Your task to perform on an android device: check the backup settings in the google photos Image 0: 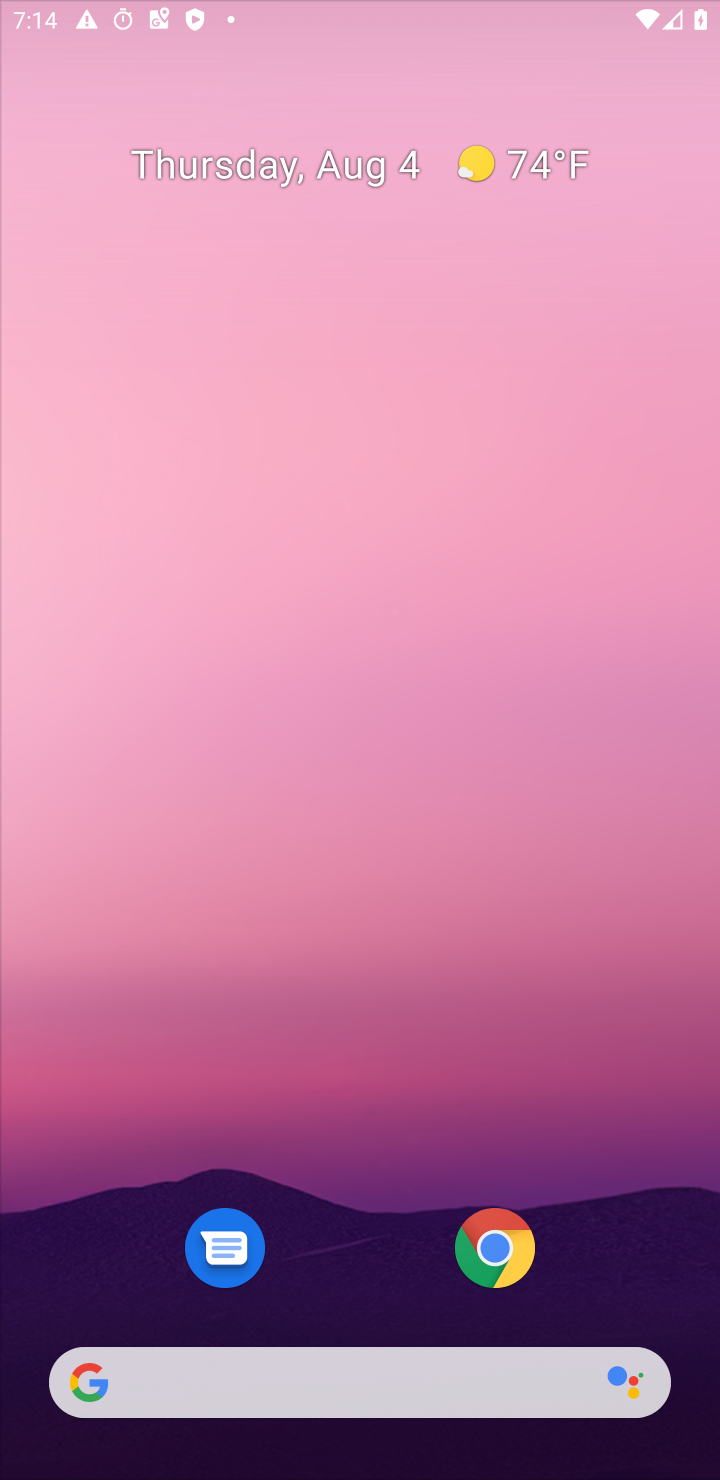
Step 0: press home button
Your task to perform on an android device: check the backup settings in the google photos Image 1: 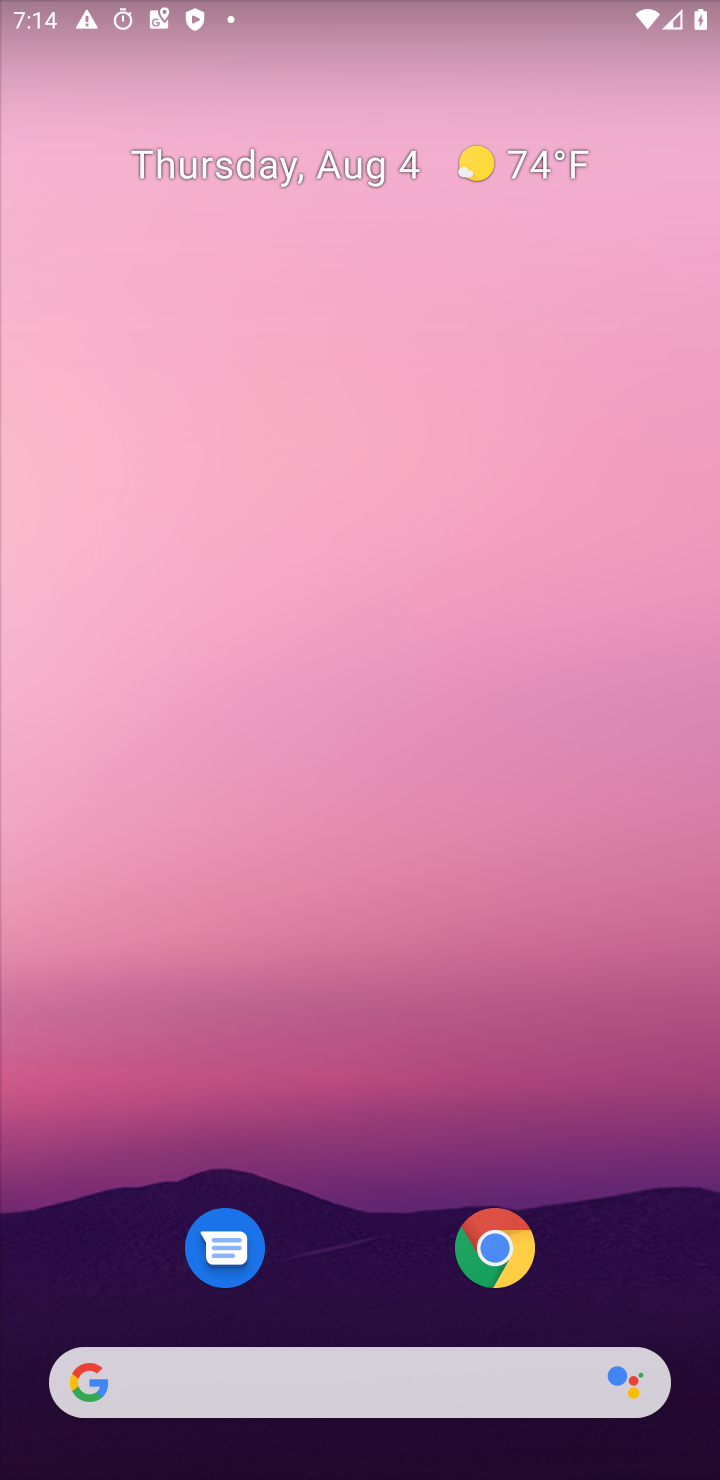
Step 1: drag from (443, 1222) to (534, 554)
Your task to perform on an android device: check the backup settings in the google photos Image 2: 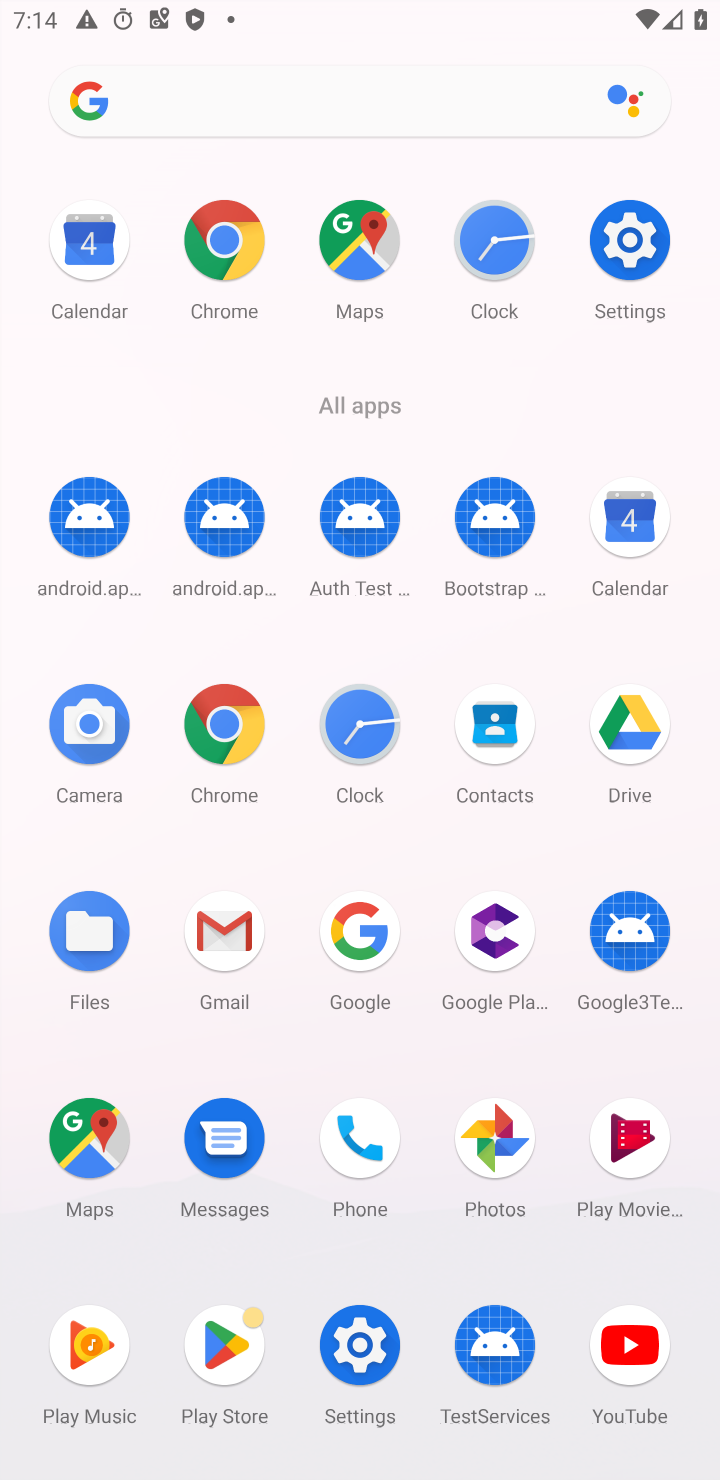
Step 2: click (499, 1132)
Your task to perform on an android device: check the backup settings in the google photos Image 3: 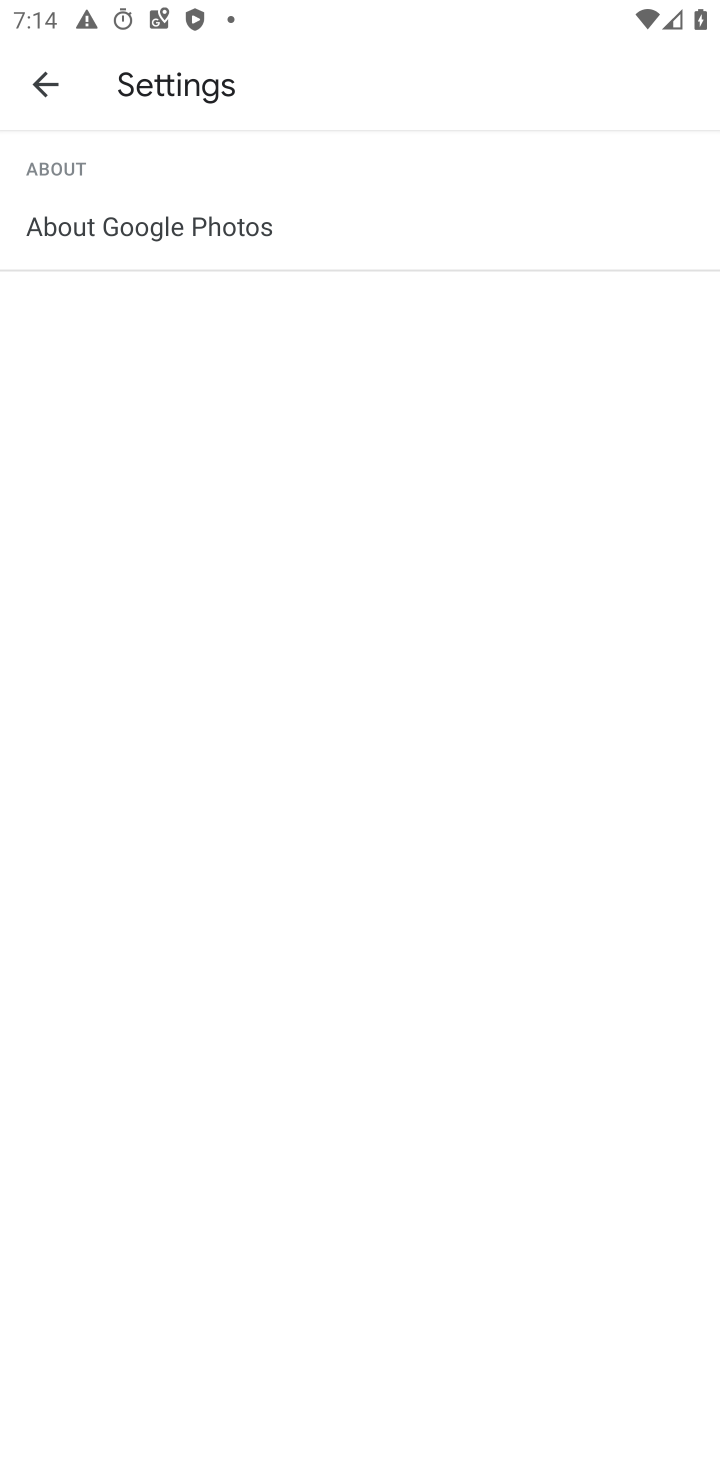
Step 3: click (50, 88)
Your task to perform on an android device: check the backup settings in the google photos Image 4: 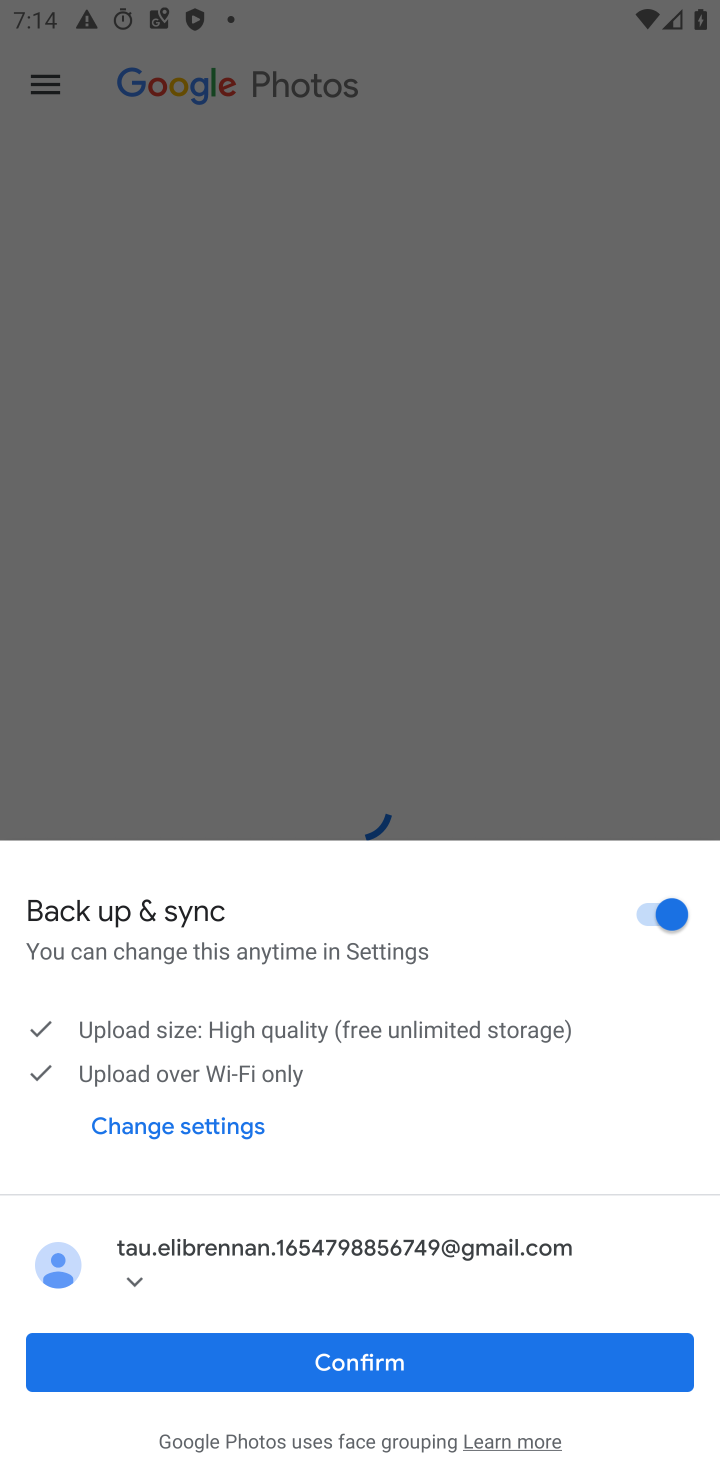
Step 4: click (503, 1363)
Your task to perform on an android device: check the backup settings in the google photos Image 5: 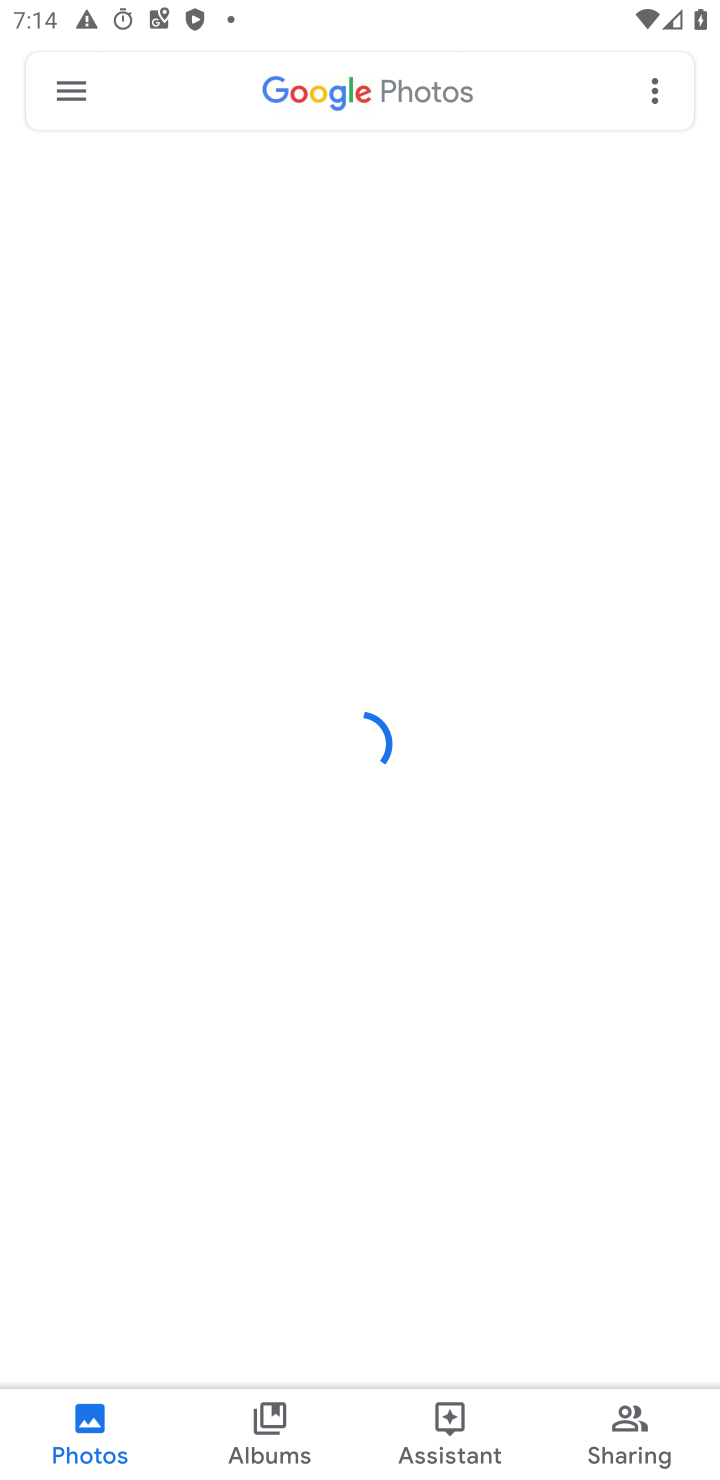
Step 5: click (72, 95)
Your task to perform on an android device: check the backup settings in the google photos Image 6: 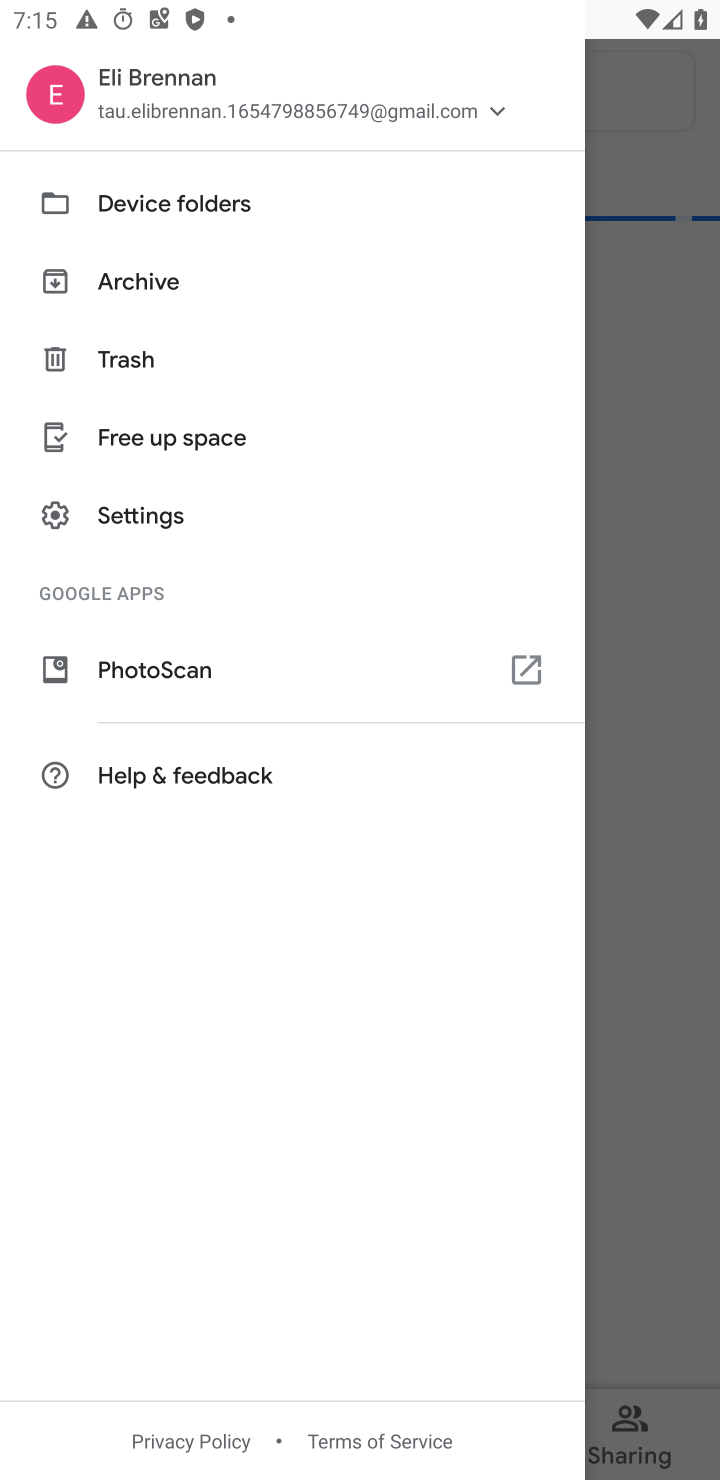
Step 6: click (163, 520)
Your task to perform on an android device: check the backup settings in the google photos Image 7: 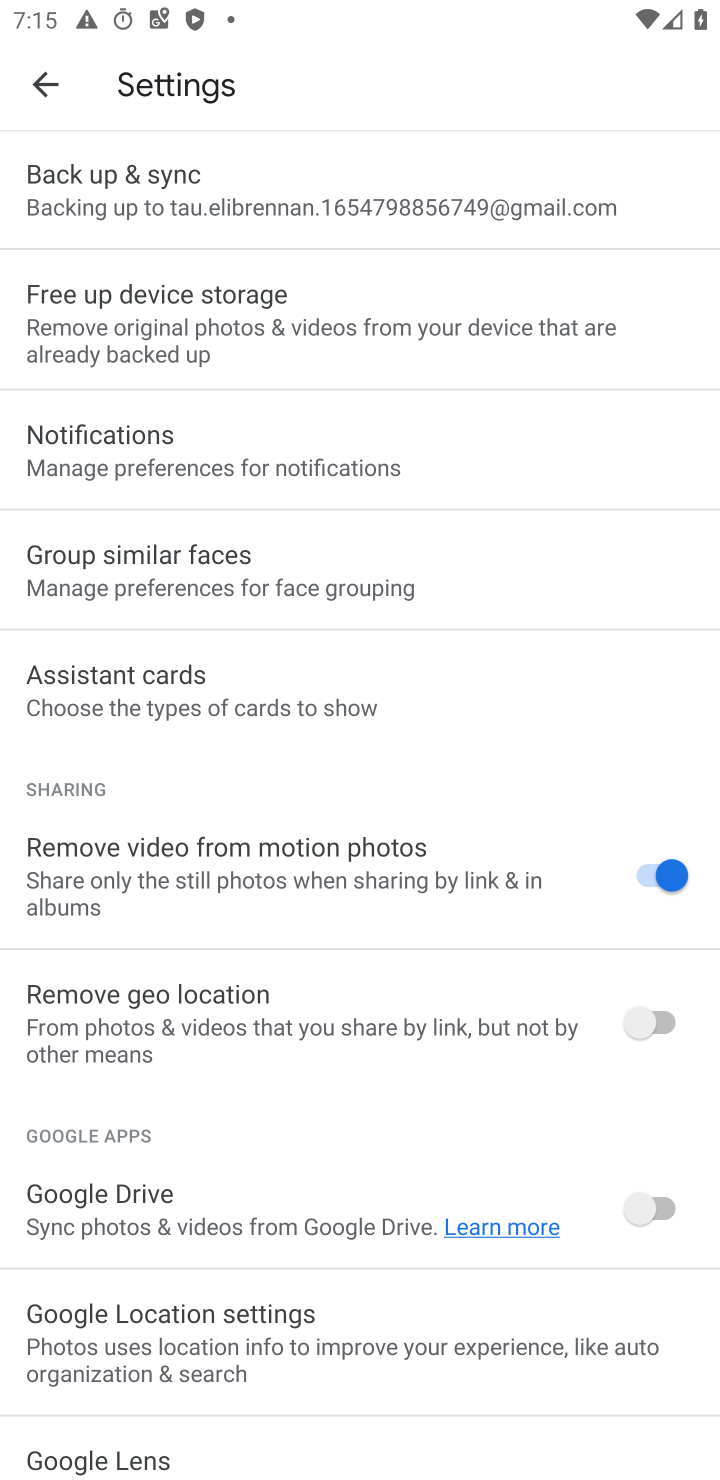
Step 7: click (170, 198)
Your task to perform on an android device: check the backup settings in the google photos Image 8: 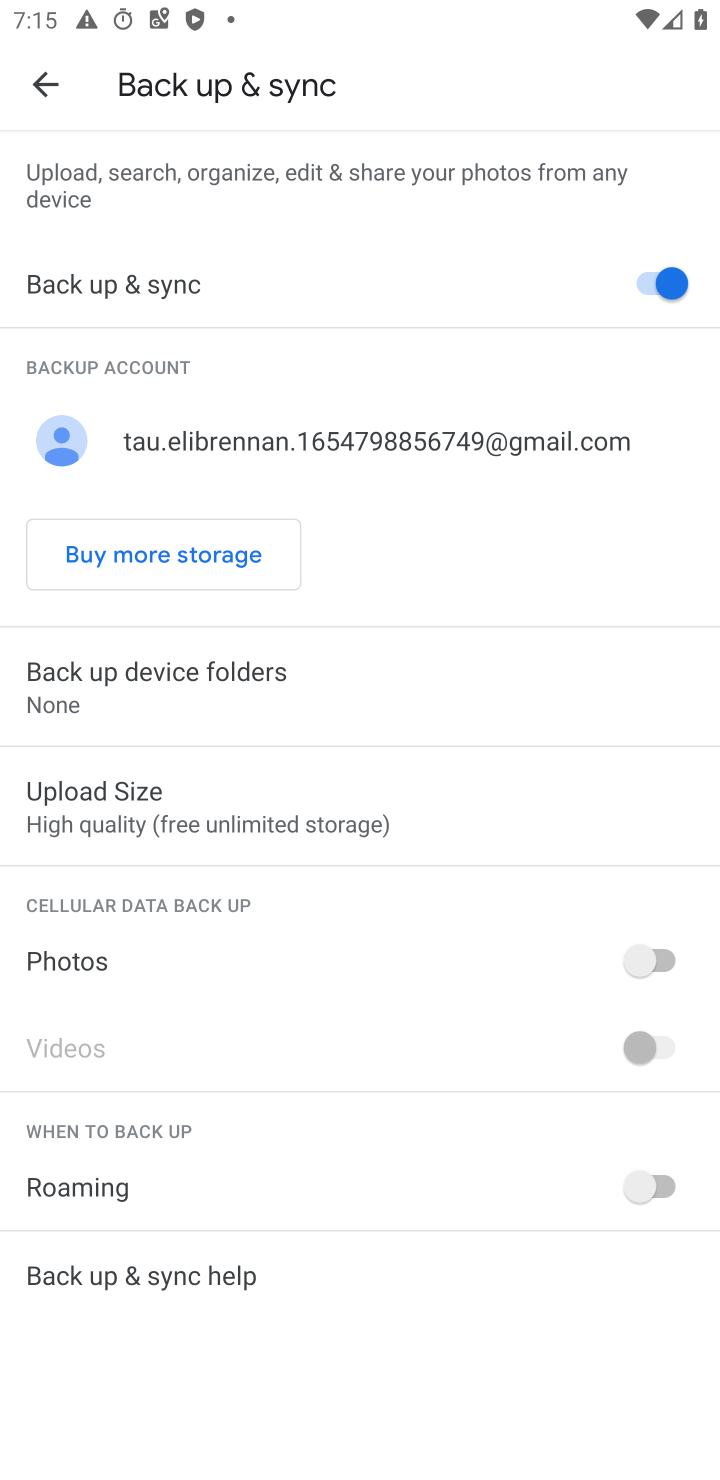
Step 8: task complete